Your task to perform on an android device: show emergency info Image 0: 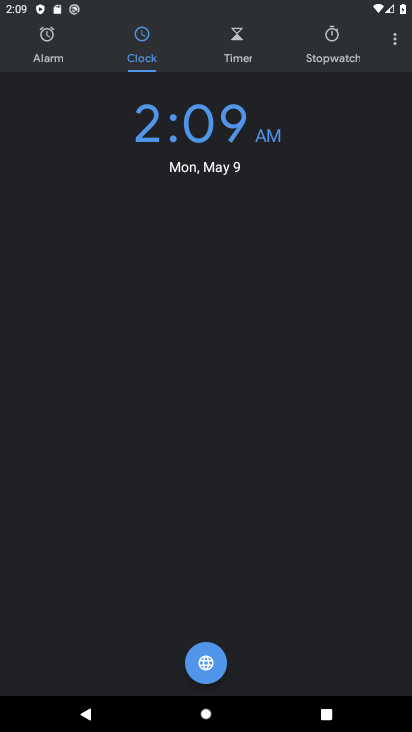
Step 0: press home button
Your task to perform on an android device: show emergency info Image 1: 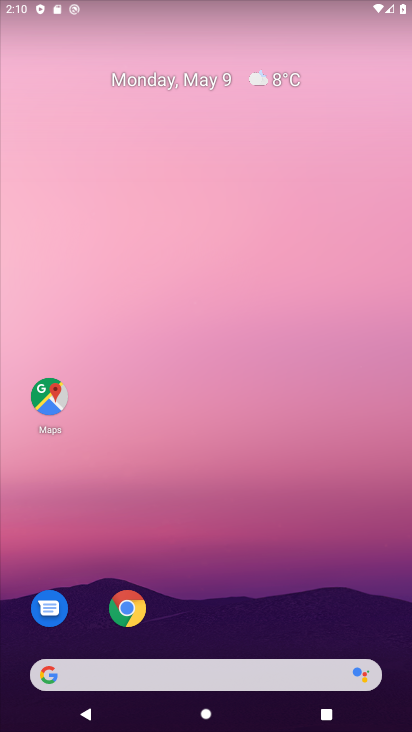
Step 1: drag from (179, 553) to (219, 370)
Your task to perform on an android device: show emergency info Image 2: 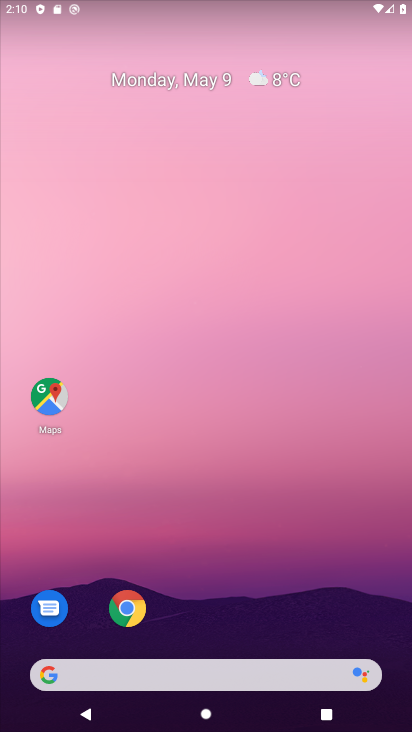
Step 2: drag from (218, 619) to (268, 173)
Your task to perform on an android device: show emergency info Image 3: 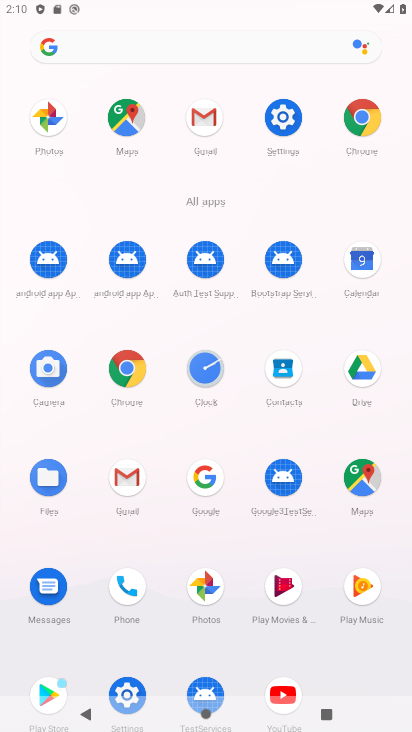
Step 3: click (277, 131)
Your task to perform on an android device: show emergency info Image 4: 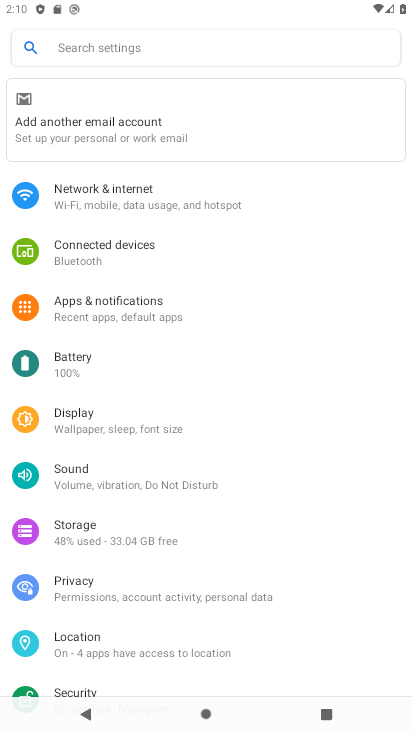
Step 4: drag from (123, 687) to (172, 249)
Your task to perform on an android device: show emergency info Image 5: 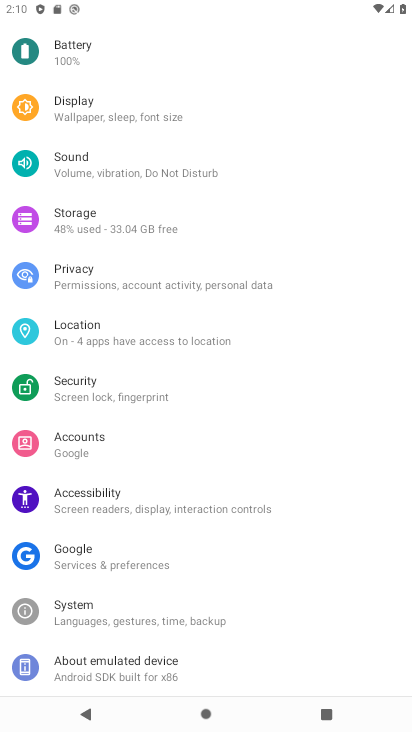
Step 5: click (148, 666)
Your task to perform on an android device: show emergency info Image 6: 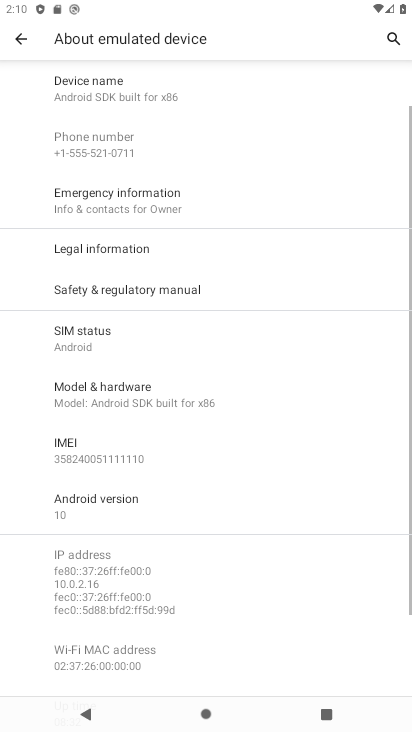
Step 6: drag from (172, 551) to (207, 193)
Your task to perform on an android device: show emergency info Image 7: 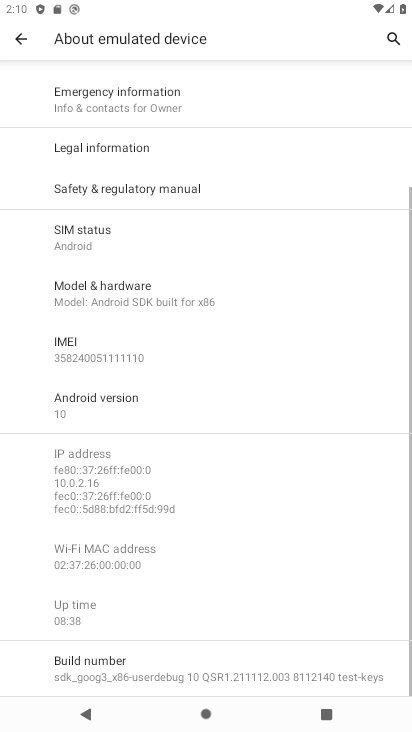
Step 7: drag from (197, 235) to (225, 598)
Your task to perform on an android device: show emergency info Image 8: 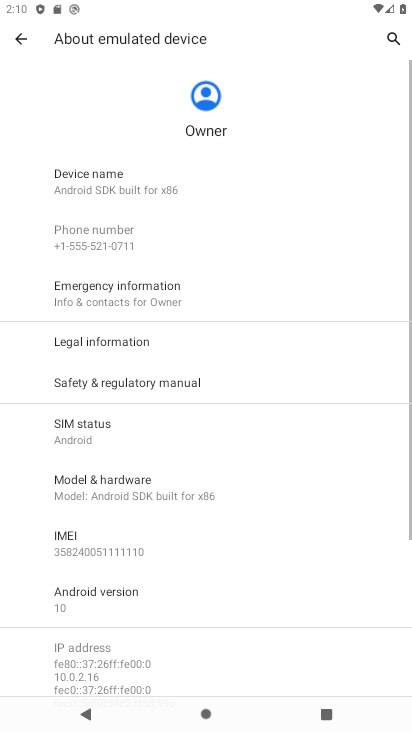
Step 8: click (122, 294)
Your task to perform on an android device: show emergency info Image 9: 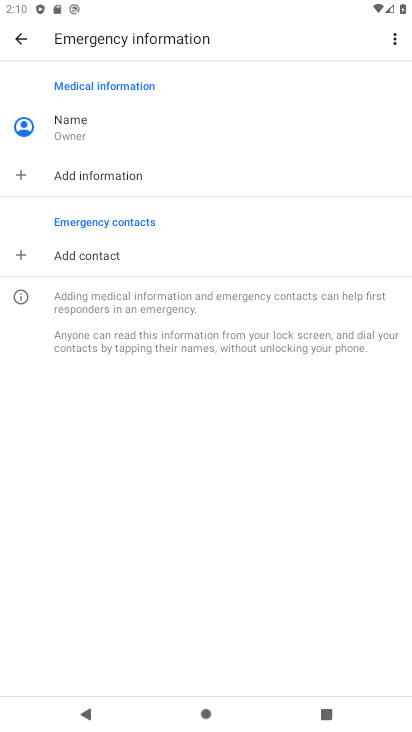
Step 9: task complete